Your task to perform on an android device: Open Google Maps Image 0: 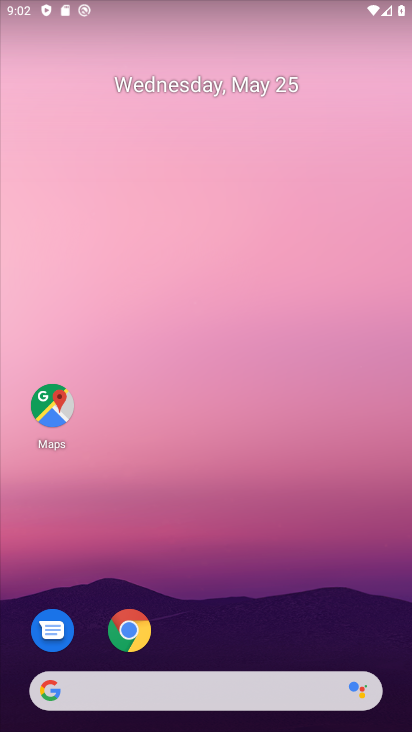
Step 0: drag from (242, 607) to (259, 52)
Your task to perform on an android device: Open Google Maps Image 1: 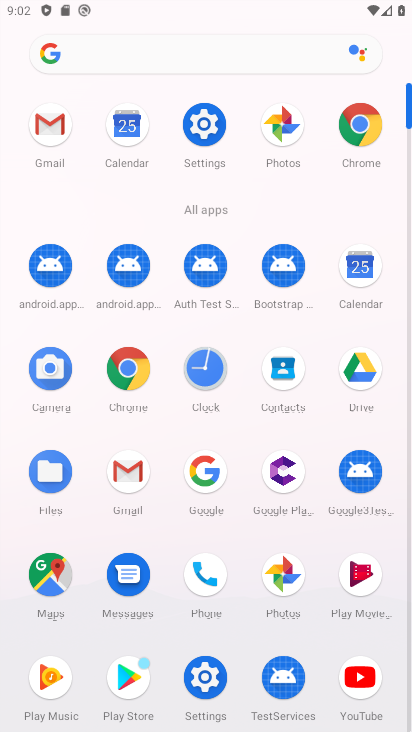
Step 1: click (48, 579)
Your task to perform on an android device: Open Google Maps Image 2: 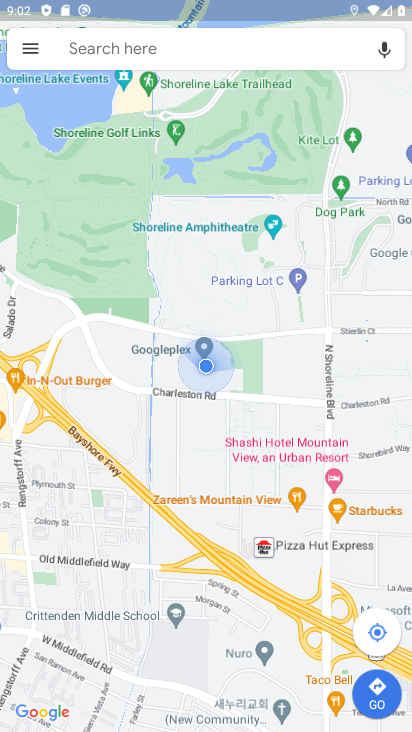
Step 2: task complete